Your task to perform on an android device: Go to Google Image 0: 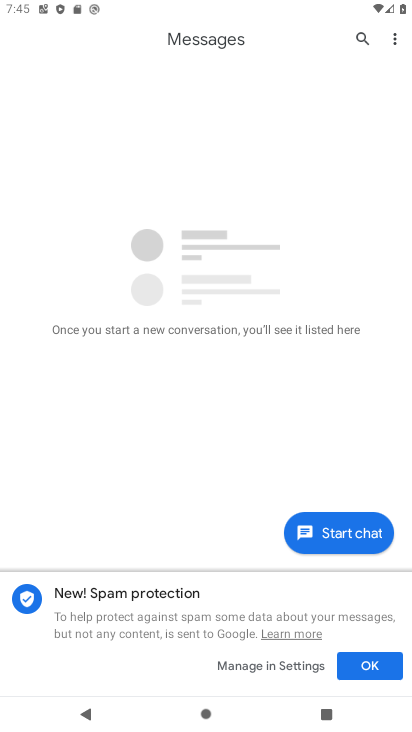
Step 0: press home button
Your task to perform on an android device: Go to Google Image 1: 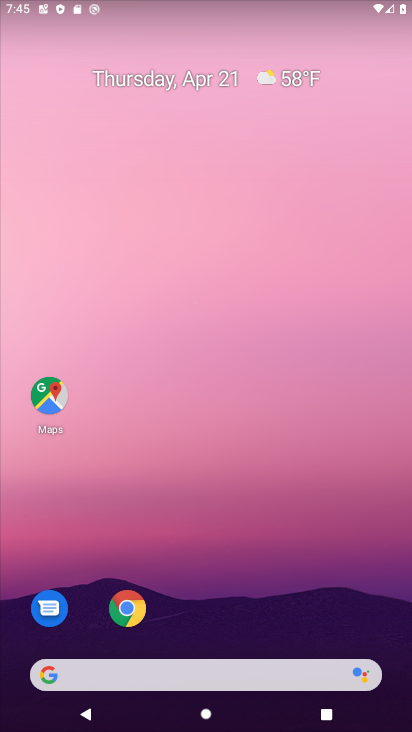
Step 1: click (46, 676)
Your task to perform on an android device: Go to Google Image 2: 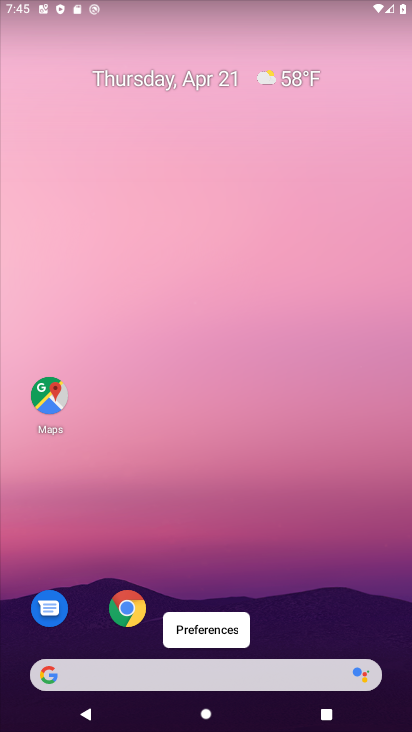
Step 2: click (46, 676)
Your task to perform on an android device: Go to Google Image 3: 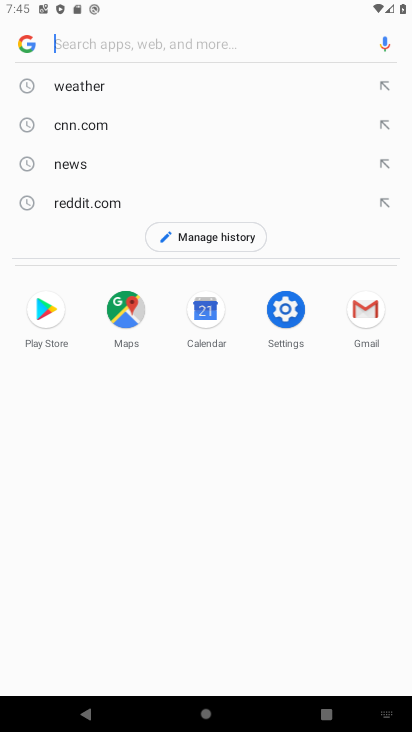
Step 3: click (23, 42)
Your task to perform on an android device: Go to Google Image 4: 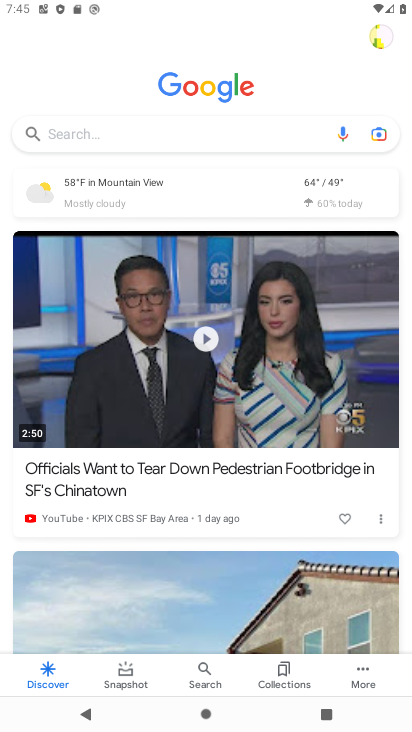
Step 4: task complete